Your task to perform on an android device: Go to settings Image 0: 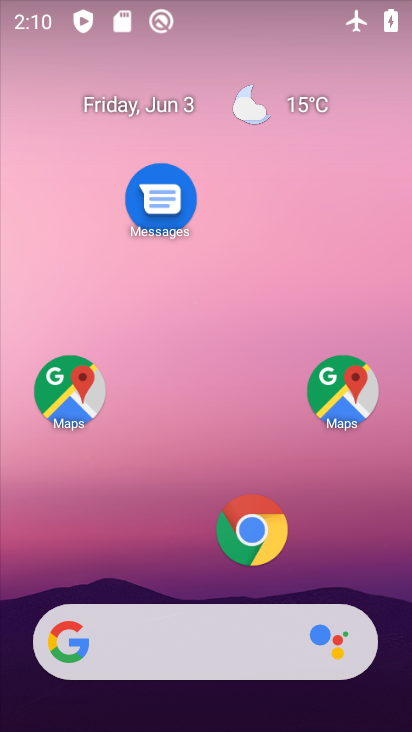
Step 0: drag from (163, 483) to (176, 104)
Your task to perform on an android device: Go to settings Image 1: 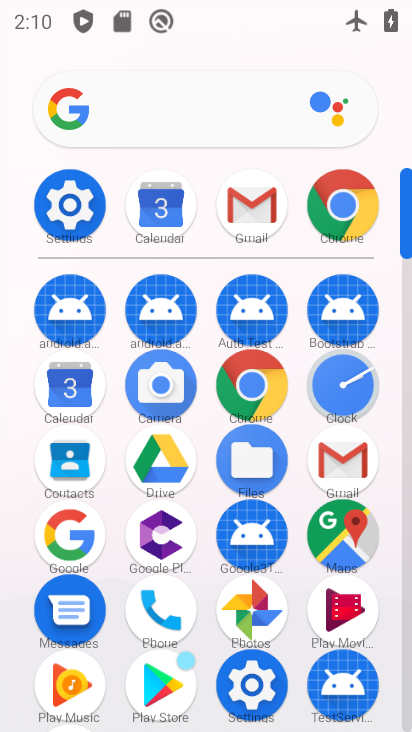
Step 1: click (57, 203)
Your task to perform on an android device: Go to settings Image 2: 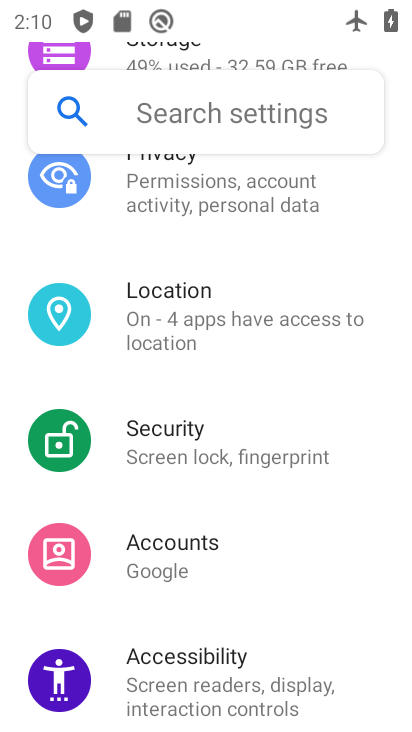
Step 2: task complete